Your task to perform on an android device: turn pop-ups on in chrome Image 0: 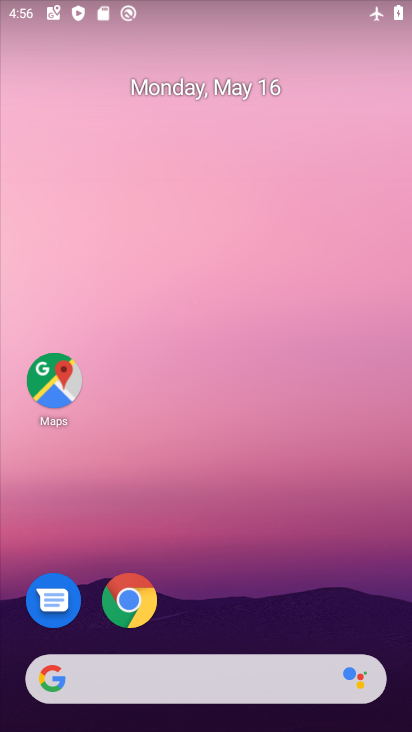
Step 0: click (140, 594)
Your task to perform on an android device: turn pop-ups on in chrome Image 1: 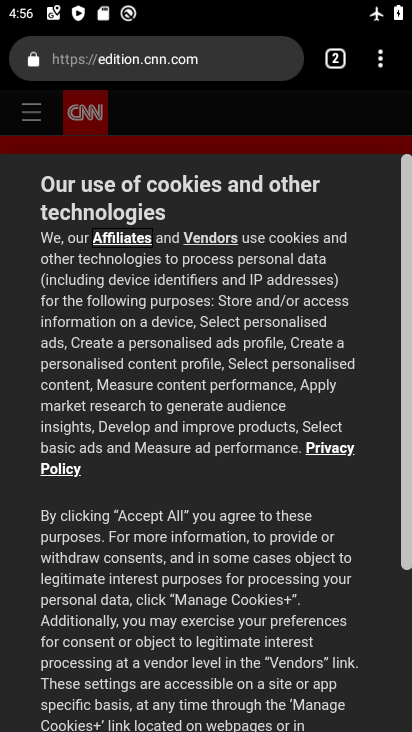
Step 1: click (380, 69)
Your task to perform on an android device: turn pop-ups on in chrome Image 2: 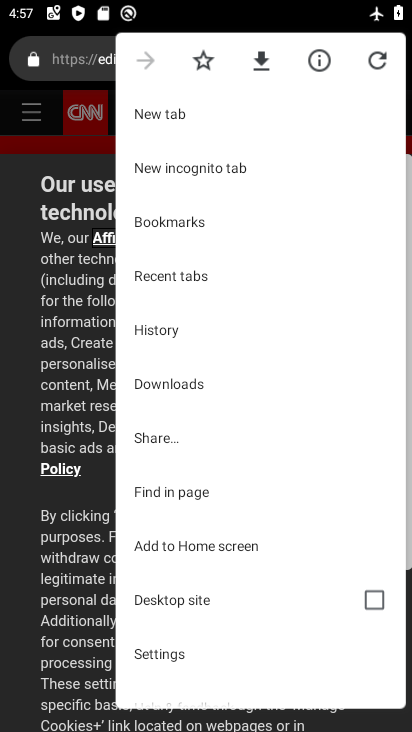
Step 2: click (189, 658)
Your task to perform on an android device: turn pop-ups on in chrome Image 3: 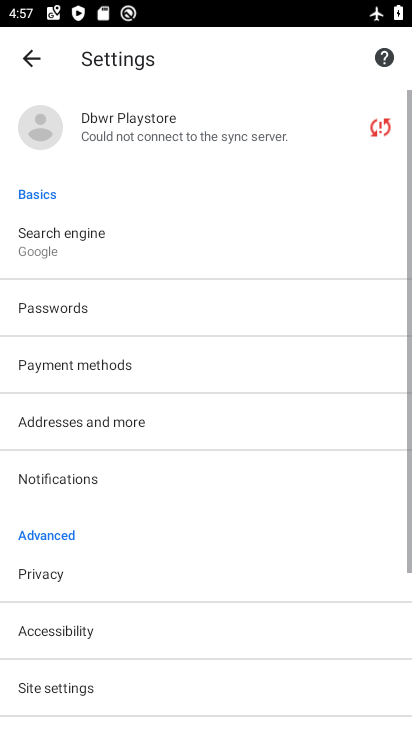
Step 3: drag from (186, 655) to (182, 326)
Your task to perform on an android device: turn pop-ups on in chrome Image 4: 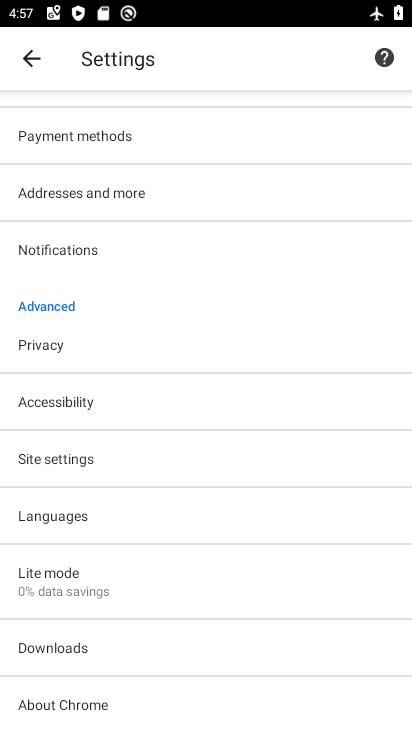
Step 4: click (108, 456)
Your task to perform on an android device: turn pop-ups on in chrome Image 5: 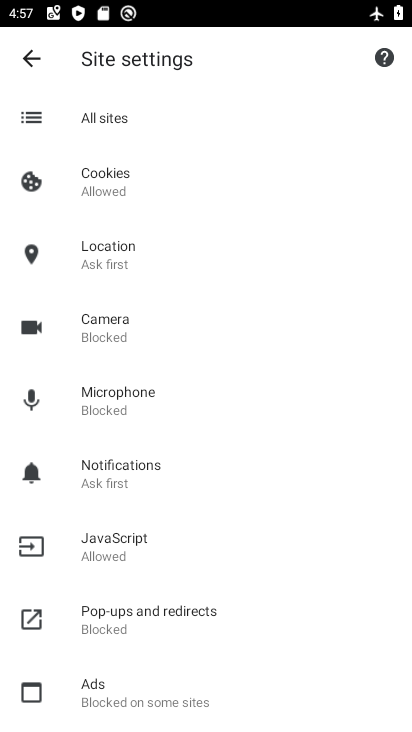
Step 5: drag from (110, 629) to (122, 113)
Your task to perform on an android device: turn pop-ups on in chrome Image 6: 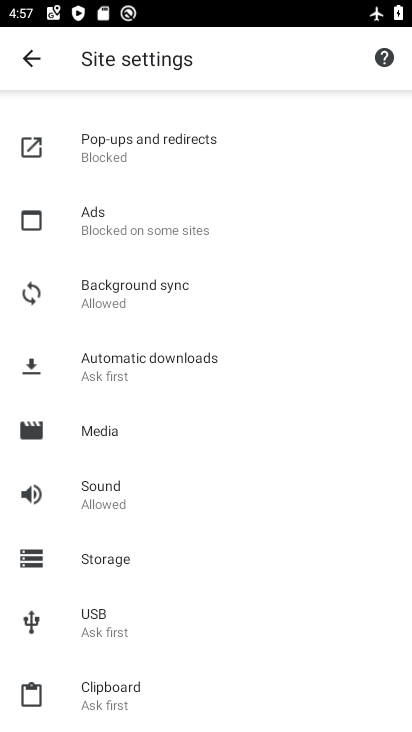
Step 6: click (134, 155)
Your task to perform on an android device: turn pop-ups on in chrome Image 7: 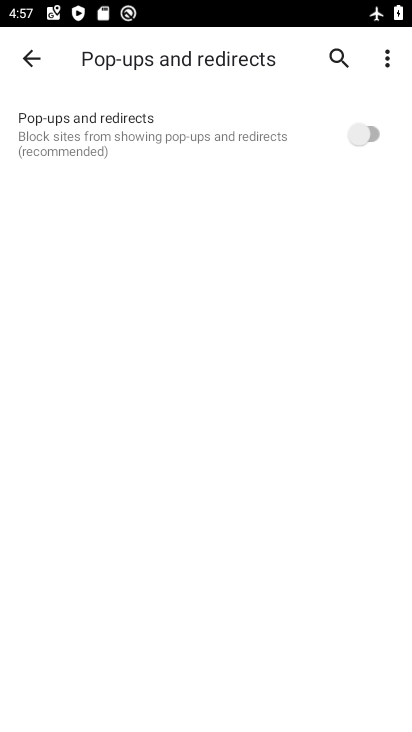
Step 7: click (357, 133)
Your task to perform on an android device: turn pop-ups on in chrome Image 8: 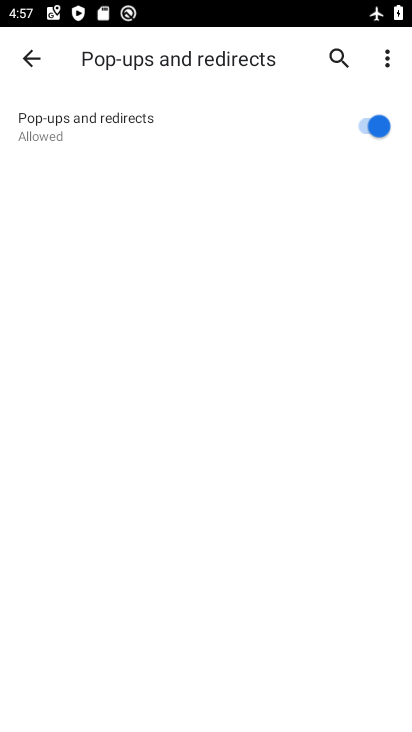
Step 8: task complete